Your task to perform on an android device: turn on improve location accuracy Image 0: 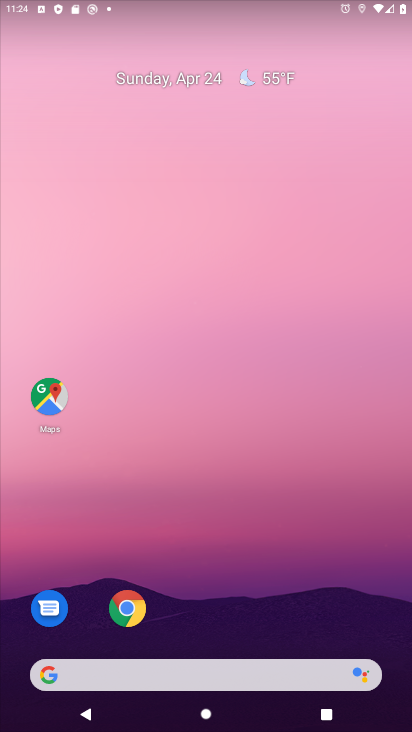
Step 0: drag from (392, 624) to (315, 44)
Your task to perform on an android device: turn on improve location accuracy Image 1: 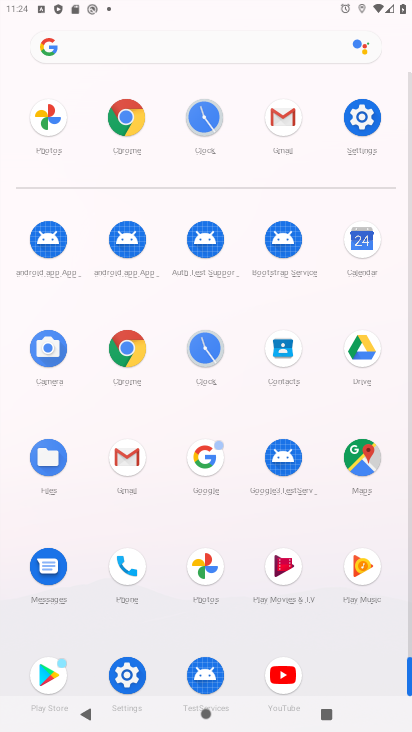
Step 1: drag from (408, 646) to (407, 590)
Your task to perform on an android device: turn on improve location accuracy Image 2: 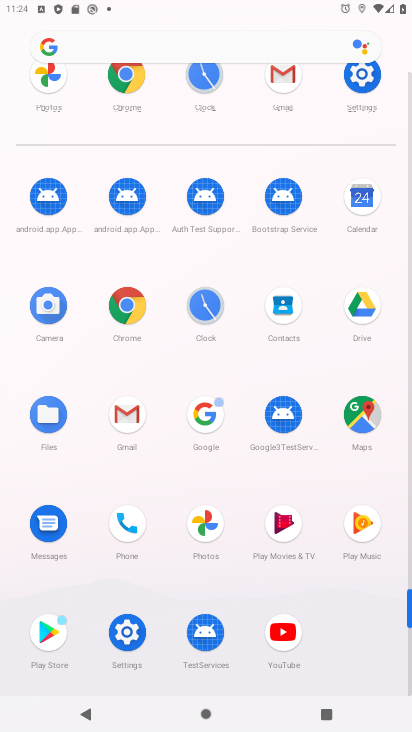
Step 2: click (126, 631)
Your task to perform on an android device: turn on improve location accuracy Image 3: 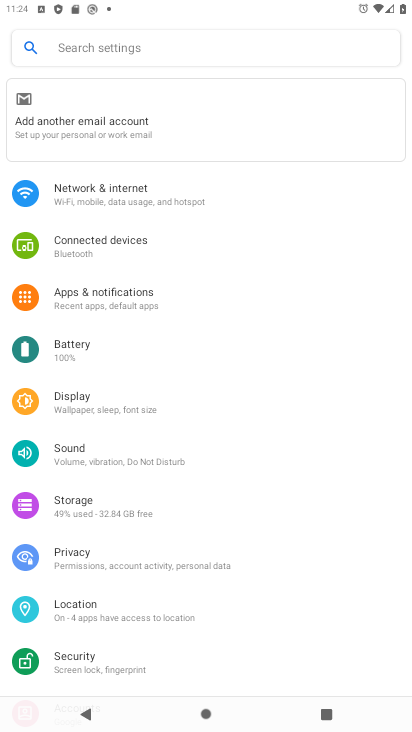
Step 3: click (72, 600)
Your task to perform on an android device: turn on improve location accuracy Image 4: 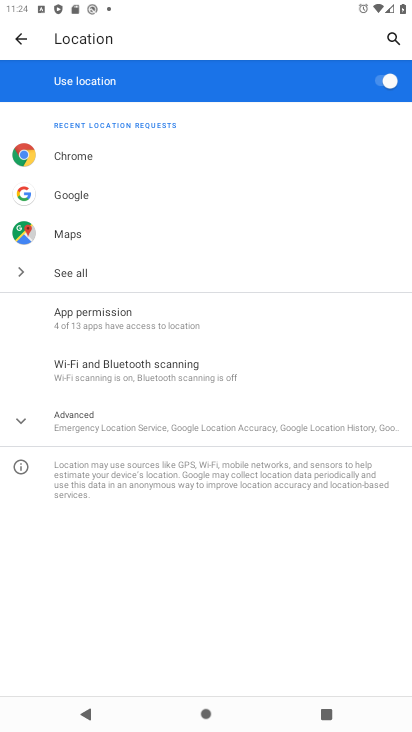
Step 4: click (17, 418)
Your task to perform on an android device: turn on improve location accuracy Image 5: 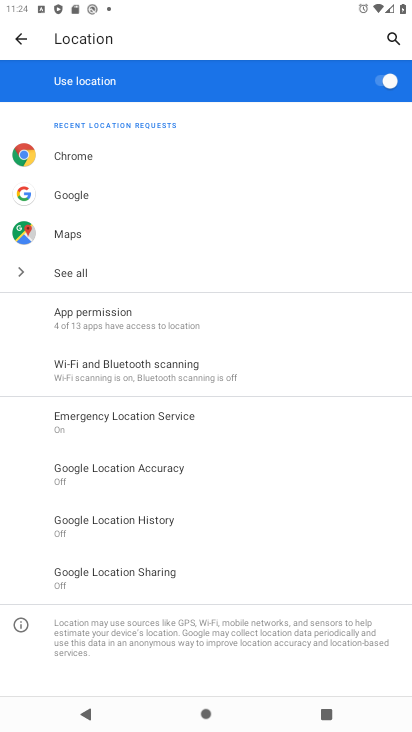
Step 5: click (83, 466)
Your task to perform on an android device: turn on improve location accuracy Image 6: 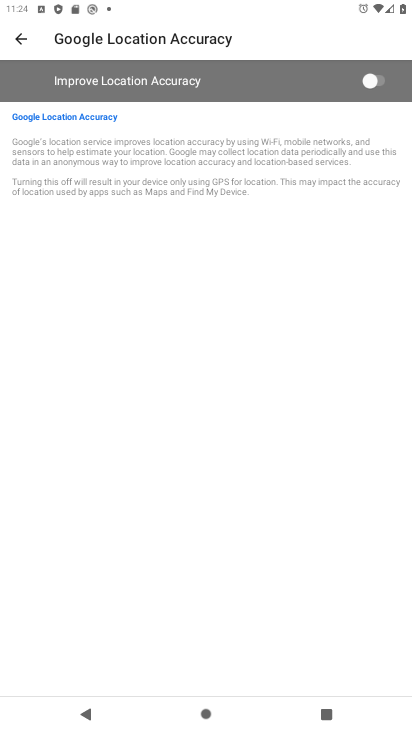
Step 6: click (373, 79)
Your task to perform on an android device: turn on improve location accuracy Image 7: 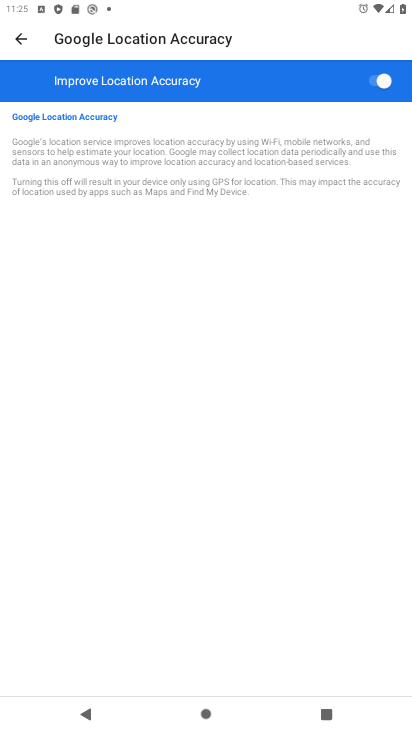
Step 7: task complete